Your task to perform on an android device: Open the web browser Image 0: 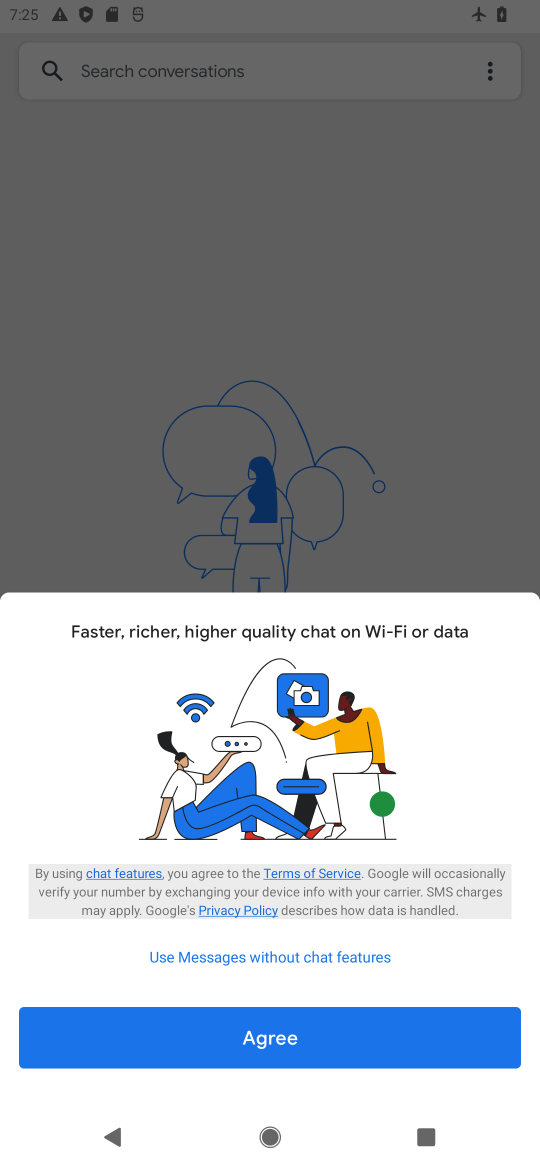
Step 0: press home button
Your task to perform on an android device: Open the web browser Image 1: 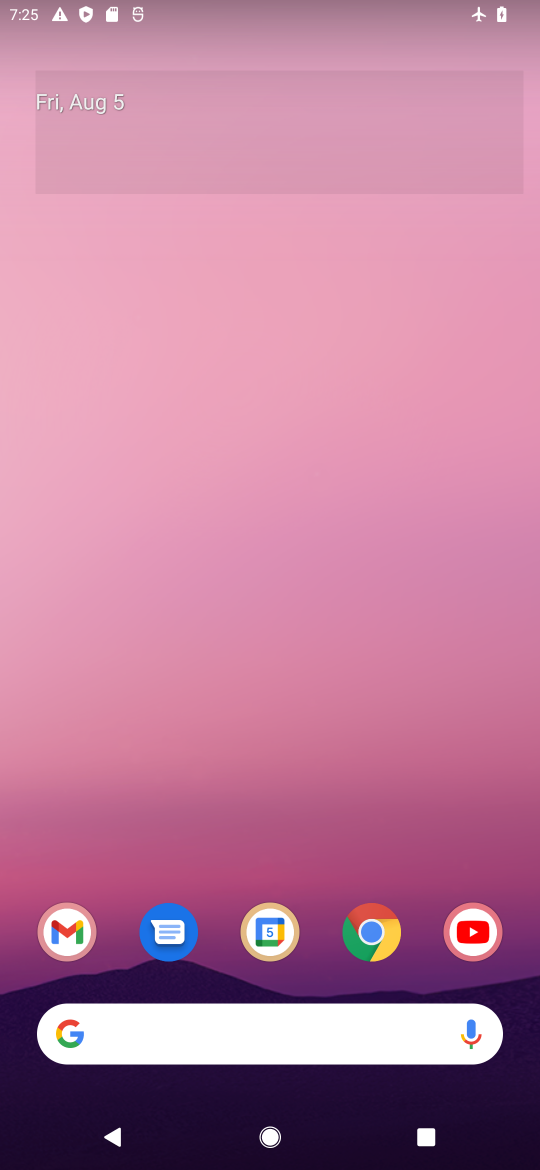
Step 1: click (371, 936)
Your task to perform on an android device: Open the web browser Image 2: 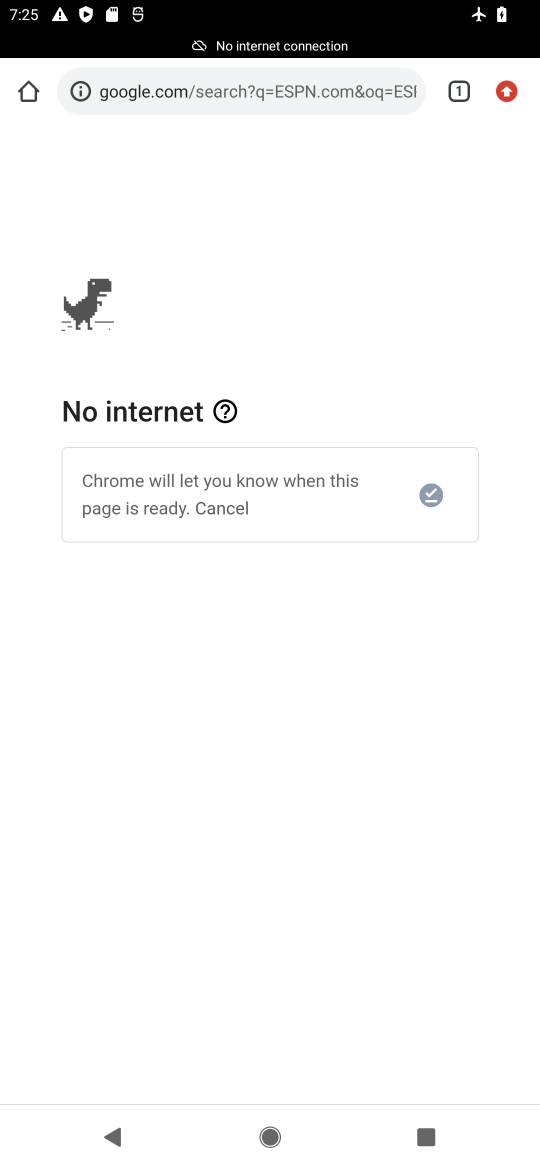
Step 2: click (277, 101)
Your task to perform on an android device: Open the web browser Image 3: 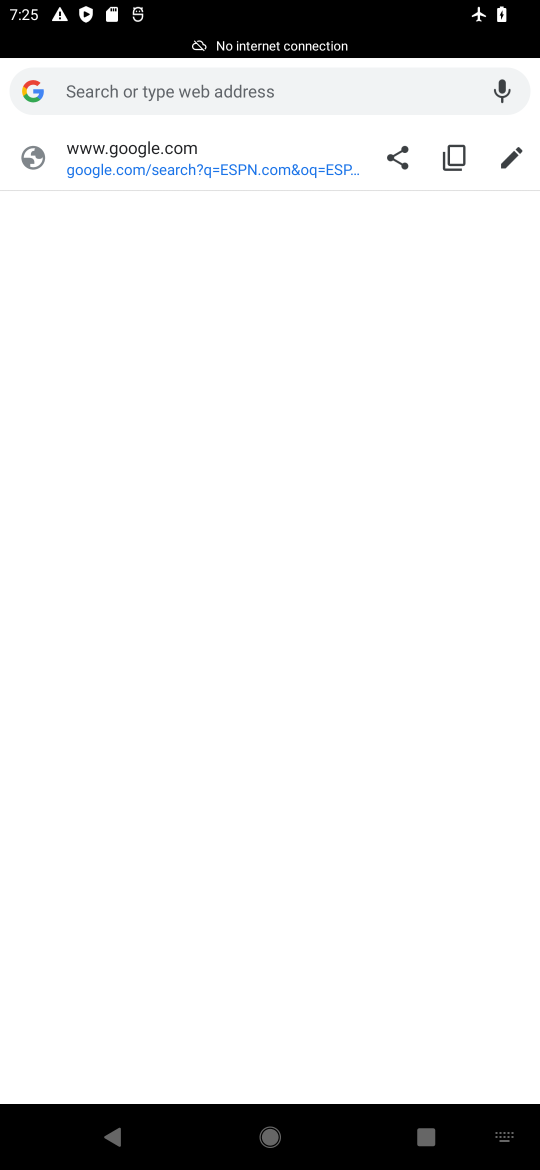
Step 3: task complete